Your task to perform on an android device: Show me recent news Image 0: 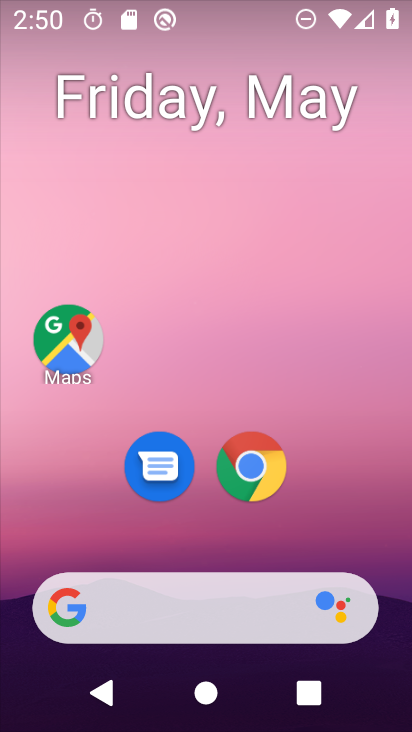
Step 0: click (264, 468)
Your task to perform on an android device: Show me recent news Image 1: 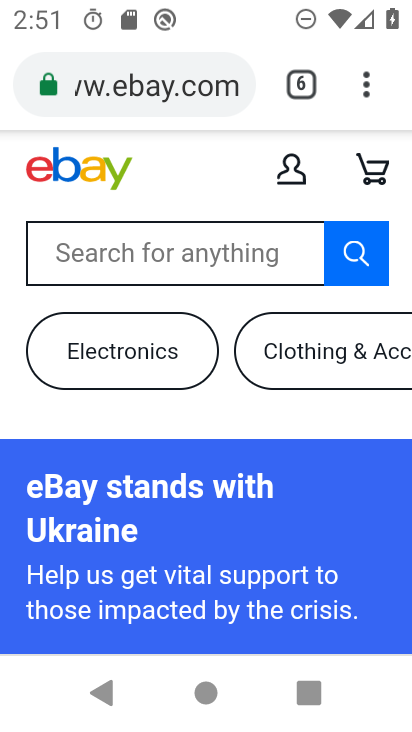
Step 1: click (174, 92)
Your task to perform on an android device: Show me recent news Image 2: 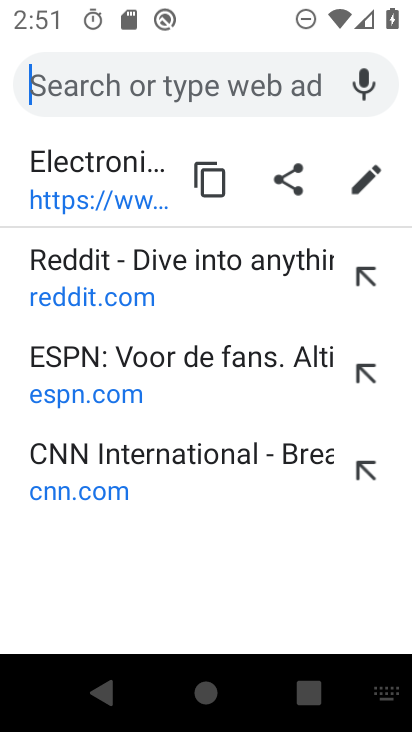
Step 2: task complete